Your task to perform on an android device: check out phone information Image 0: 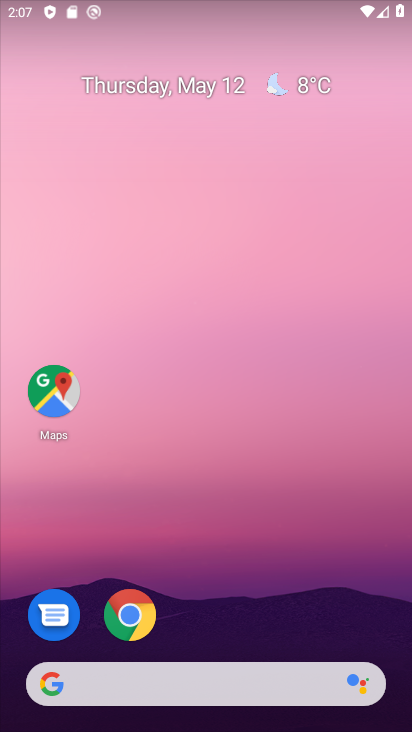
Step 0: drag from (259, 661) to (369, 110)
Your task to perform on an android device: check out phone information Image 1: 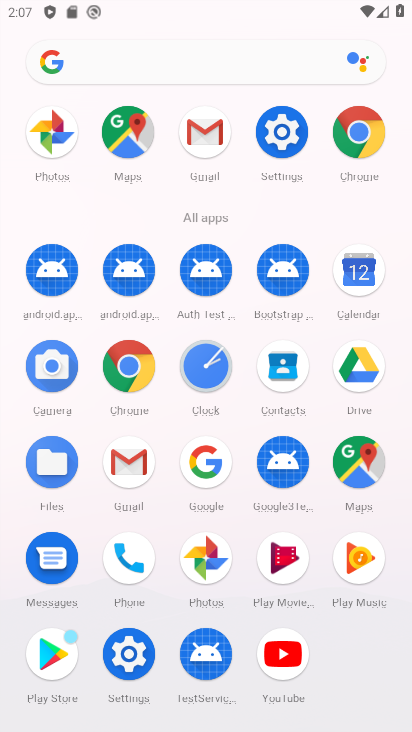
Step 1: drag from (205, 636) to (260, 373)
Your task to perform on an android device: check out phone information Image 2: 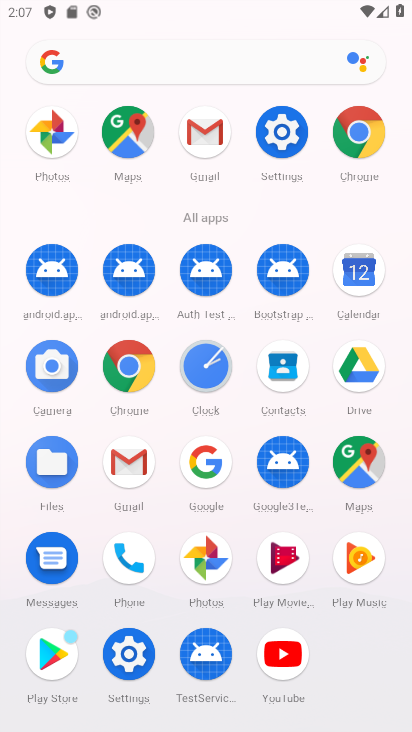
Step 2: click (123, 658)
Your task to perform on an android device: check out phone information Image 3: 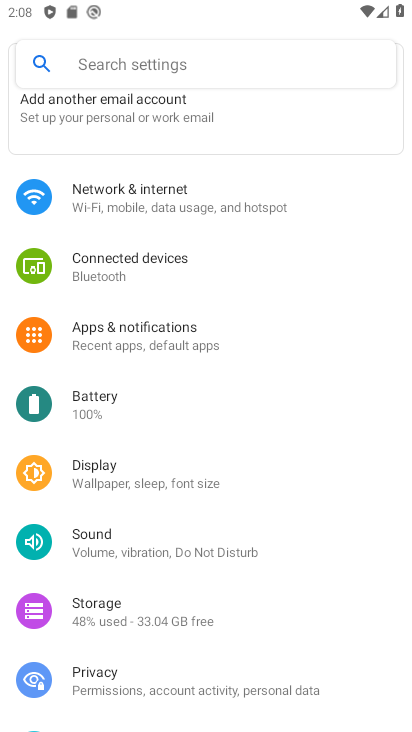
Step 3: drag from (100, 673) to (238, 120)
Your task to perform on an android device: check out phone information Image 4: 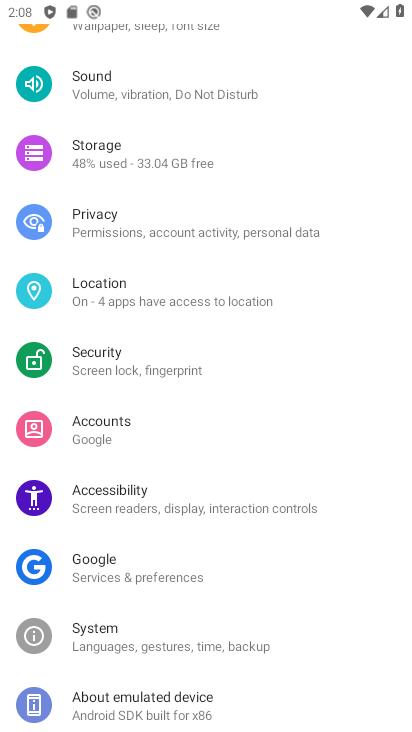
Step 4: click (149, 724)
Your task to perform on an android device: check out phone information Image 5: 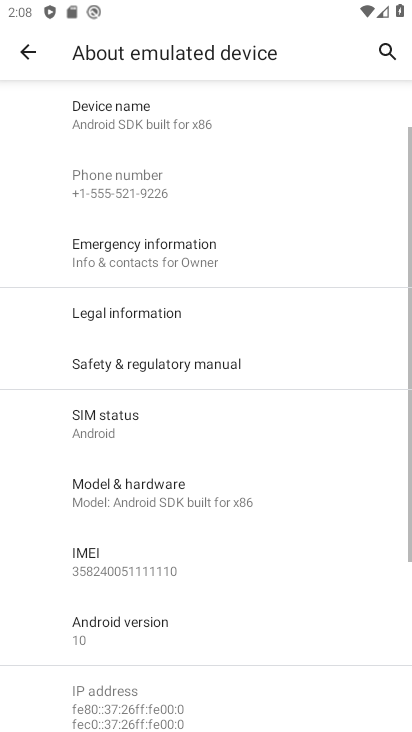
Step 5: task complete